Your task to perform on an android device: Show me productivity apps on the Play Store Image 0: 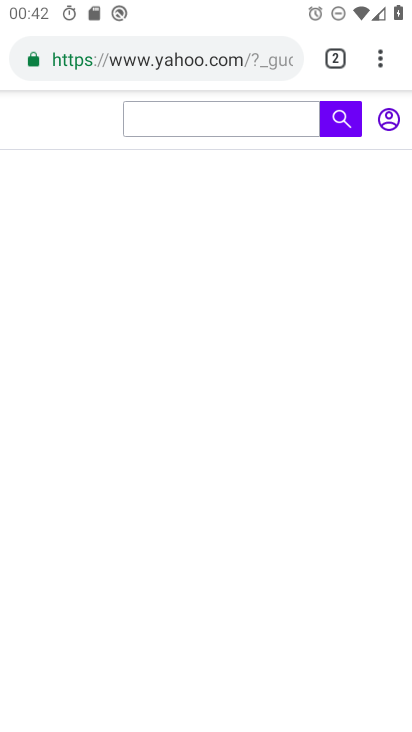
Step 0: press home button
Your task to perform on an android device: Show me productivity apps on the Play Store Image 1: 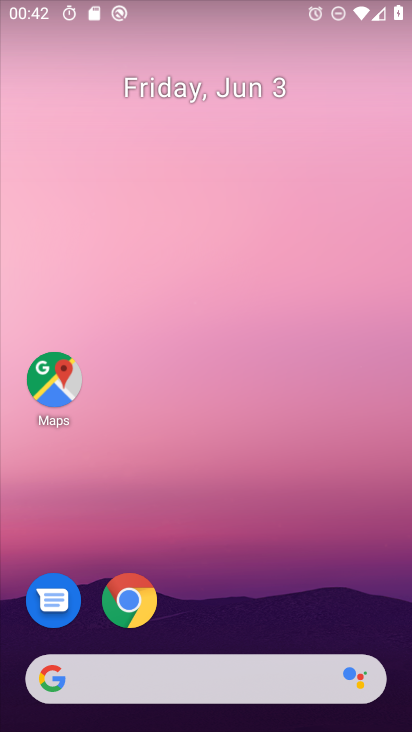
Step 1: drag from (184, 621) to (230, 52)
Your task to perform on an android device: Show me productivity apps on the Play Store Image 2: 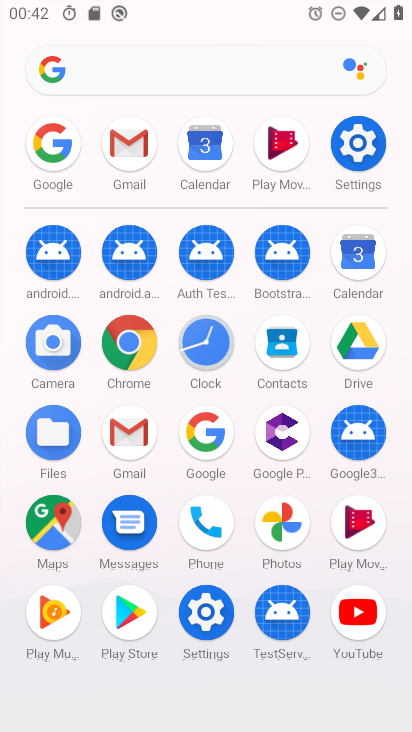
Step 2: click (117, 610)
Your task to perform on an android device: Show me productivity apps on the Play Store Image 3: 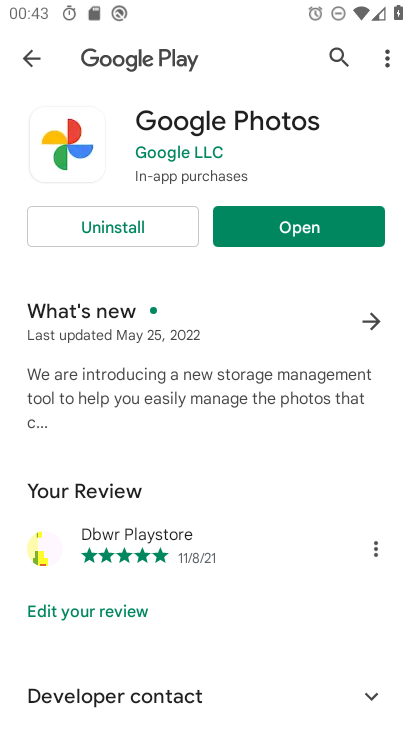
Step 3: press back button
Your task to perform on an android device: Show me productivity apps on the Play Store Image 4: 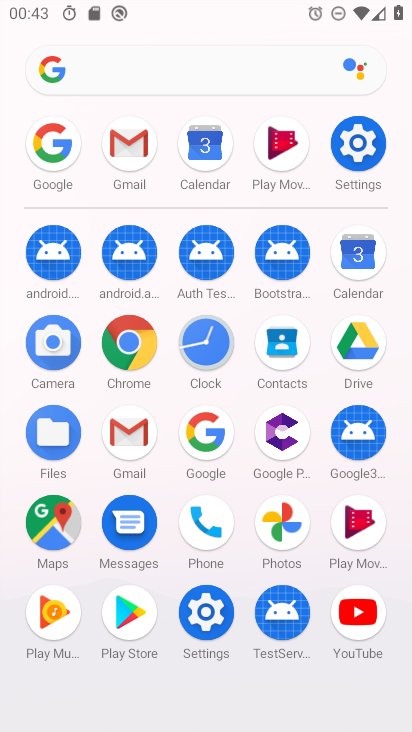
Step 4: click (132, 613)
Your task to perform on an android device: Show me productivity apps on the Play Store Image 5: 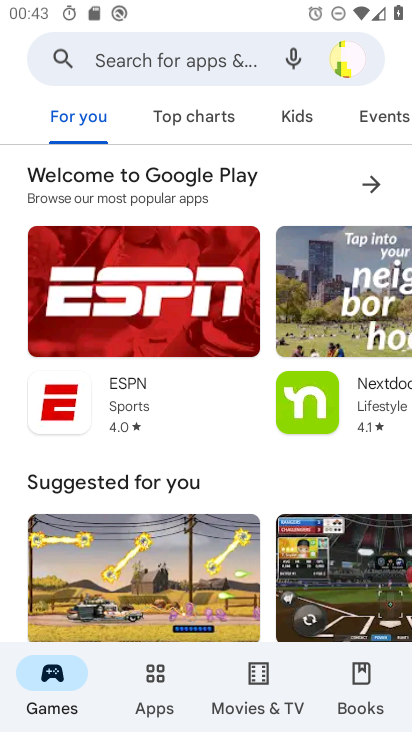
Step 5: click (155, 686)
Your task to perform on an android device: Show me productivity apps on the Play Store Image 6: 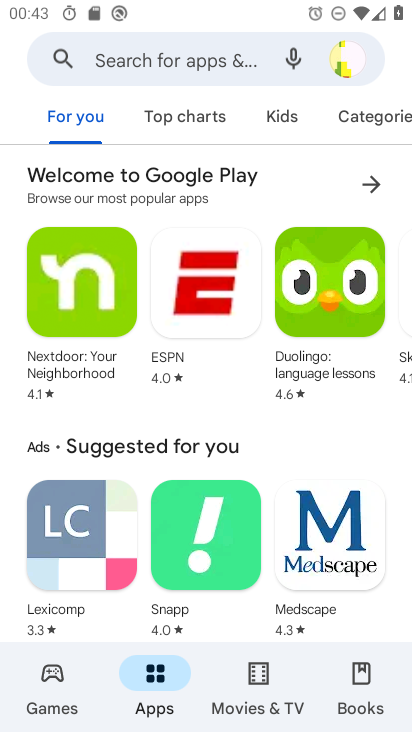
Step 6: drag from (354, 112) to (173, 107)
Your task to perform on an android device: Show me productivity apps on the Play Store Image 7: 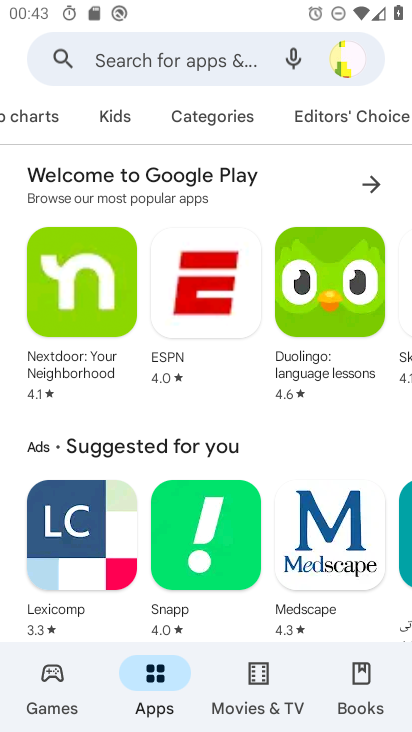
Step 7: click (190, 122)
Your task to perform on an android device: Show me productivity apps on the Play Store Image 8: 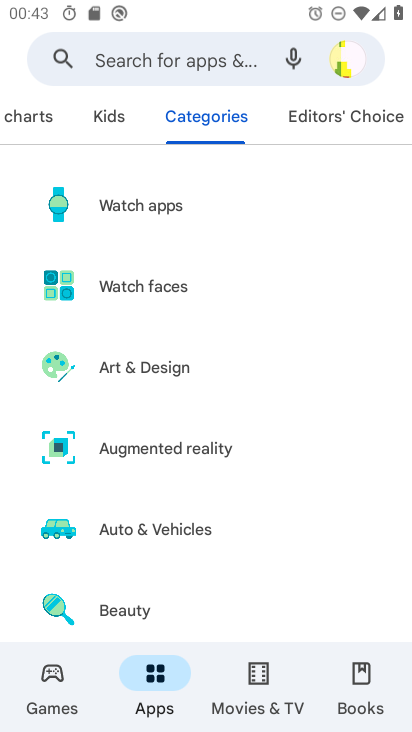
Step 8: drag from (225, 605) to (248, 28)
Your task to perform on an android device: Show me productivity apps on the Play Store Image 9: 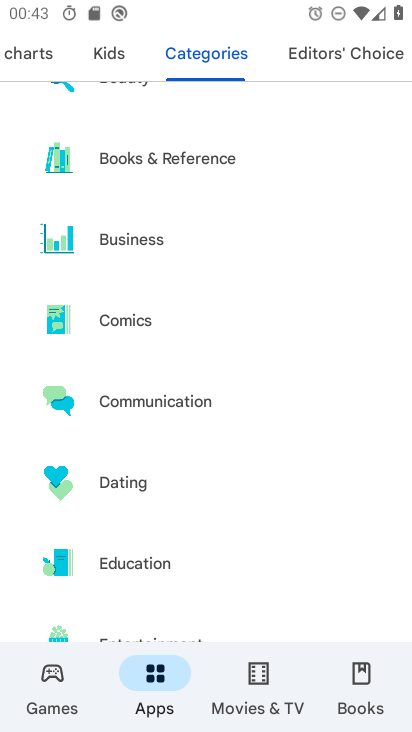
Step 9: drag from (240, 603) to (238, 80)
Your task to perform on an android device: Show me productivity apps on the Play Store Image 10: 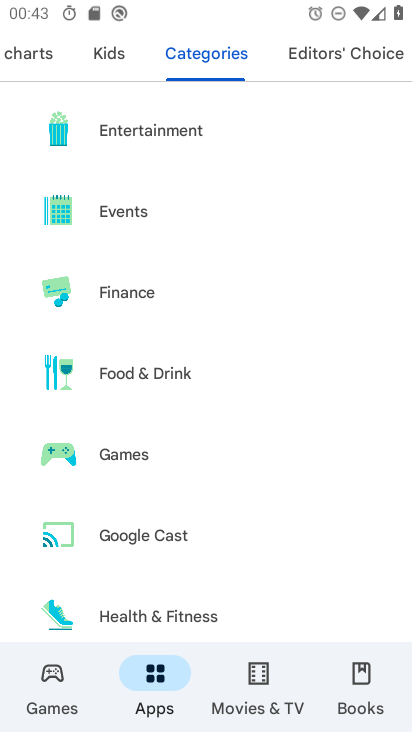
Step 10: drag from (211, 639) to (222, 260)
Your task to perform on an android device: Show me productivity apps on the Play Store Image 11: 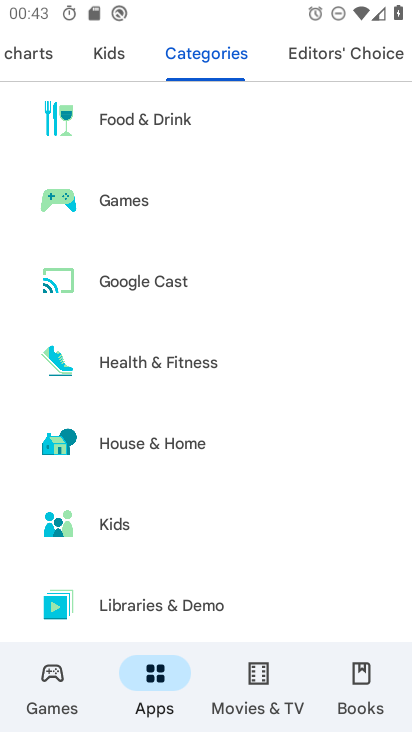
Step 11: drag from (195, 591) to (175, 173)
Your task to perform on an android device: Show me productivity apps on the Play Store Image 12: 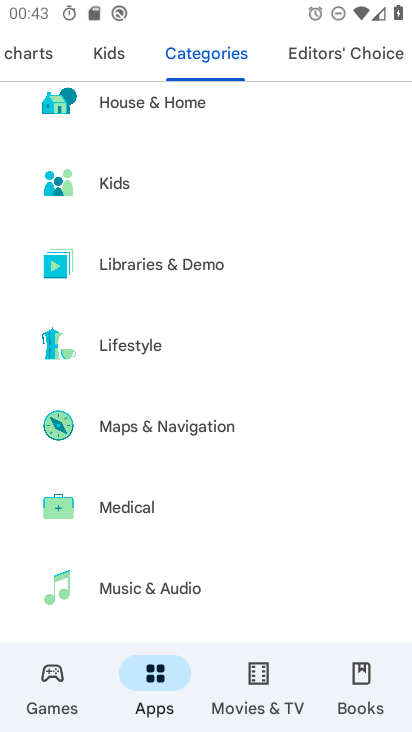
Step 12: drag from (234, 623) to (234, 100)
Your task to perform on an android device: Show me productivity apps on the Play Store Image 13: 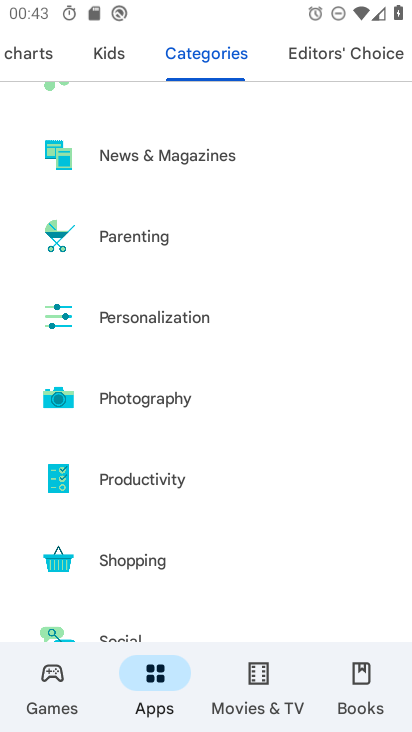
Step 13: click (163, 490)
Your task to perform on an android device: Show me productivity apps on the Play Store Image 14: 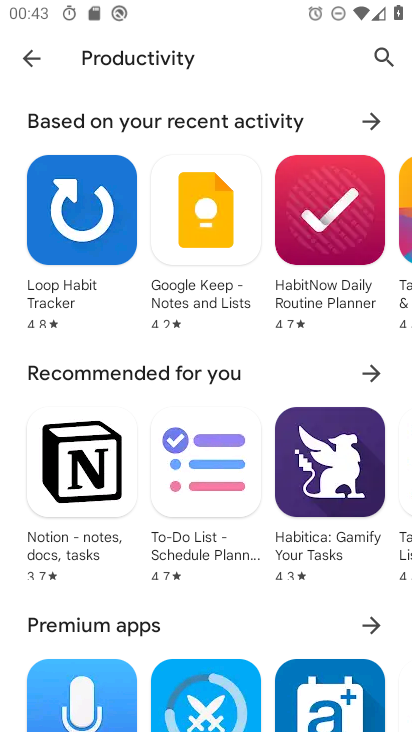
Step 14: task complete